Your task to perform on an android device: Open calendar and show me the second week of next month Image 0: 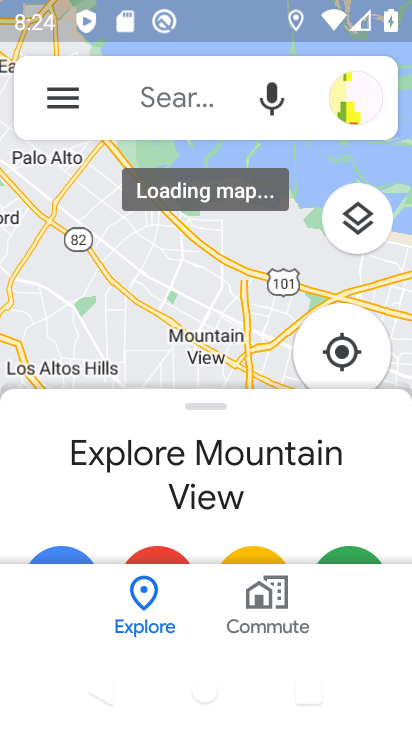
Step 0: press home button
Your task to perform on an android device: Open calendar and show me the second week of next month Image 1: 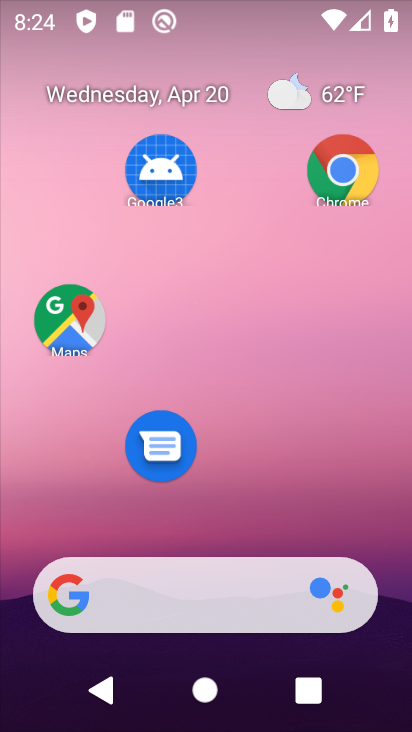
Step 1: drag from (257, 479) to (264, 21)
Your task to perform on an android device: Open calendar and show me the second week of next month Image 2: 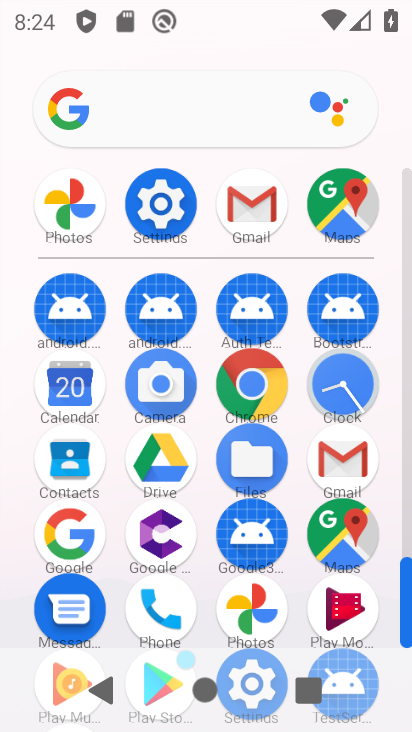
Step 2: click (69, 382)
Your task to perform on an android device: Open calendar and show me the second week of next month Image 3: 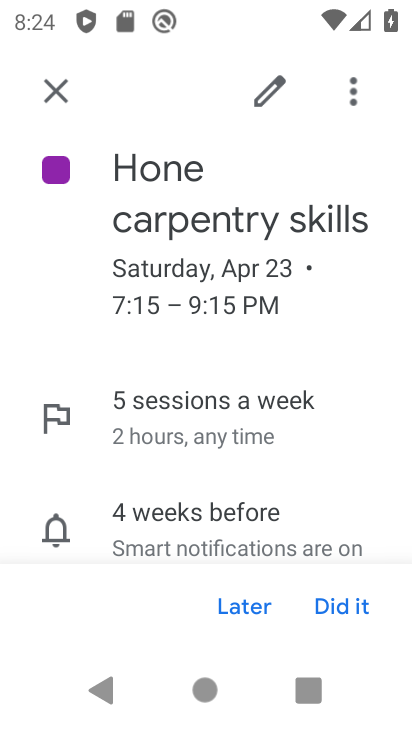
Step 3: click (55, 87)
Your task to perform on an android device: Open calendar and show me the second week of next month Image 4: 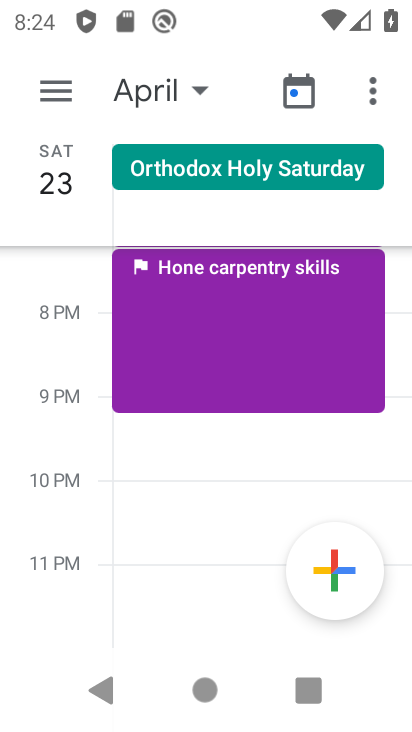
Step 4: click (55, 87)
Your task to perform on an android device: Open calendar and show me the second week of next month Image 5: 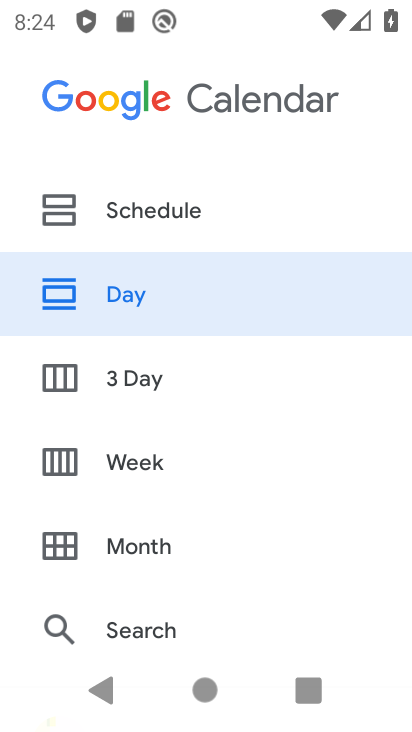
Step 5: click (127, 456)
Your task to perform on an android device: Open calendar and show me the second week of next month Image 6: 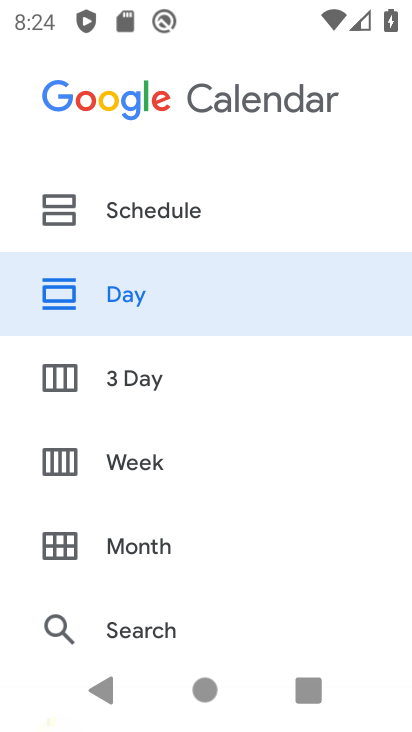
Step 6: click (144, 465)
Your task to perform on an android device: Open calendar and show me the second week of next month Image 7: 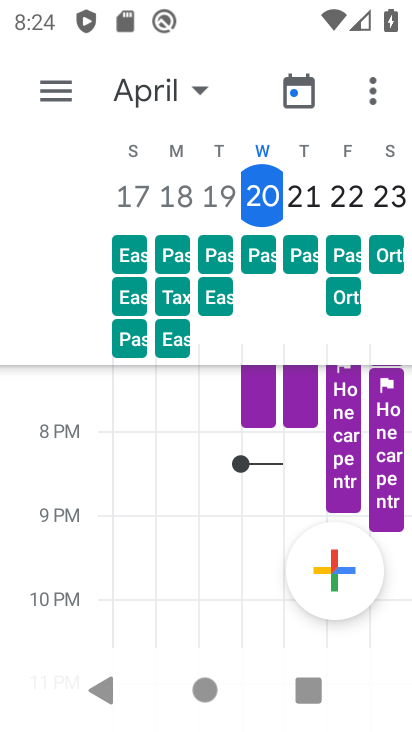
Step 7: click (199, 88)
Your task to perform on an android device: Open calendar and show me the second week of next month Image 8: 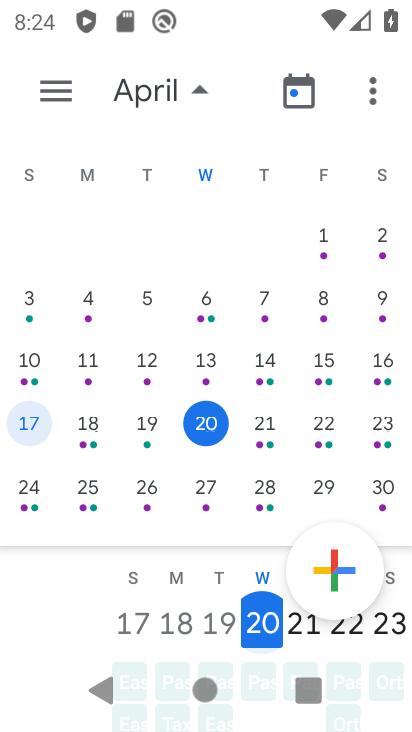
Step 8: drag from (387, 390) to (16, 152)
Your task to perform on an android device: Open calendar and show me the second week of next month Image 9: 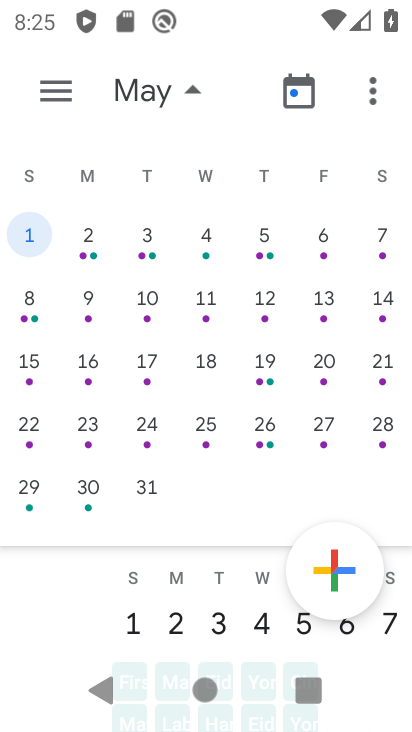
Step 9: click (83, 300)
Your task to perform on an android device: Open calendar and show me the second week of next month Image 10: 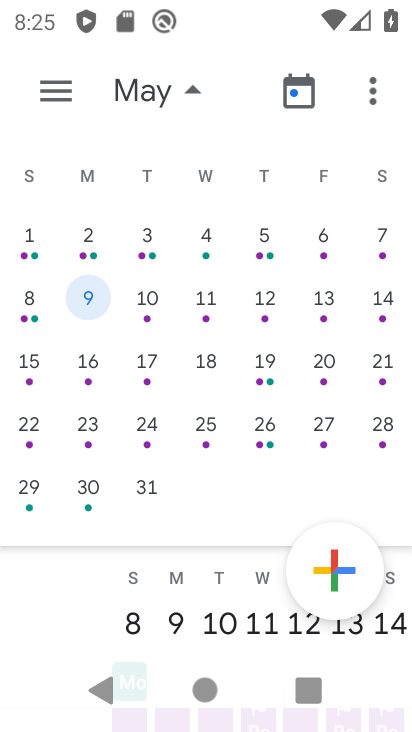
Step 10: task complete